Your task to perform on an android device: change keyboard looks Image 0: 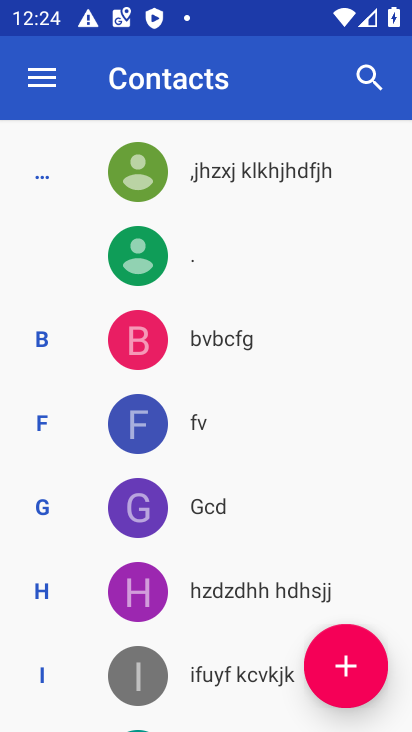
Step 0: press home button
Your task to perform on an android device: change keyboard looks Image 1: 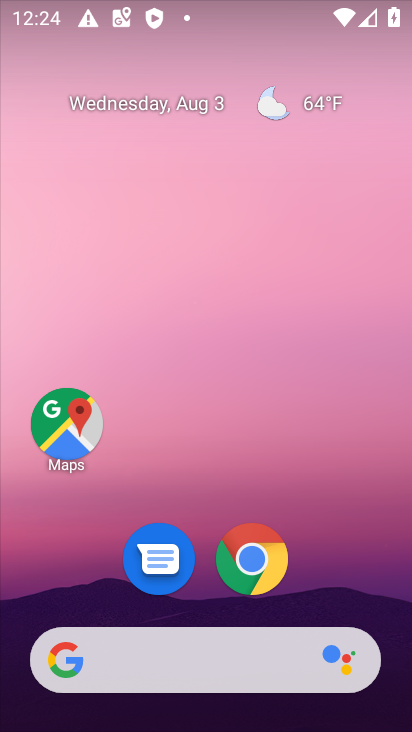
Step 1: drag from (194, 621) to (191, 189)
Your task to perform on an android device: change keyboard looks Image 2: 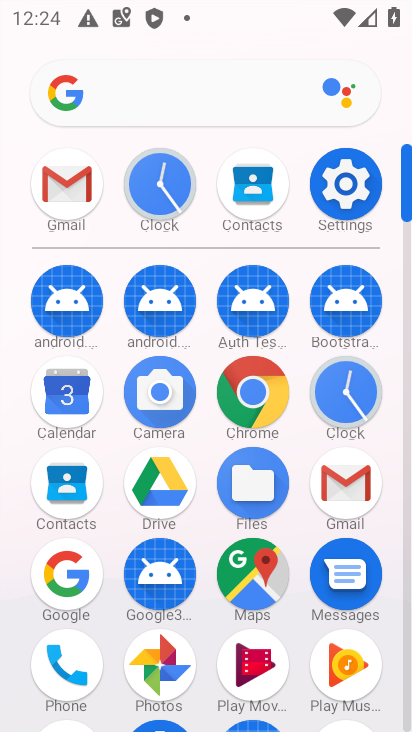
Step 2: click (347, 192)
Your task to perform on an android device: change keyboard looks Image 3: 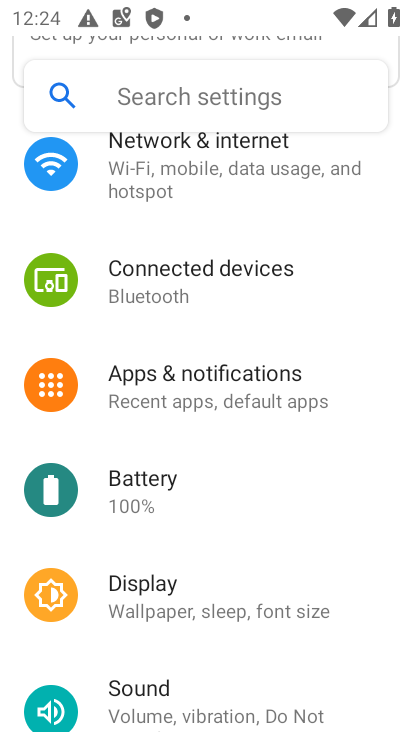
Step 3: drag from (154, 672) to (159, 386)
Your task to perform on an android device: change keyboard looks Image 4: 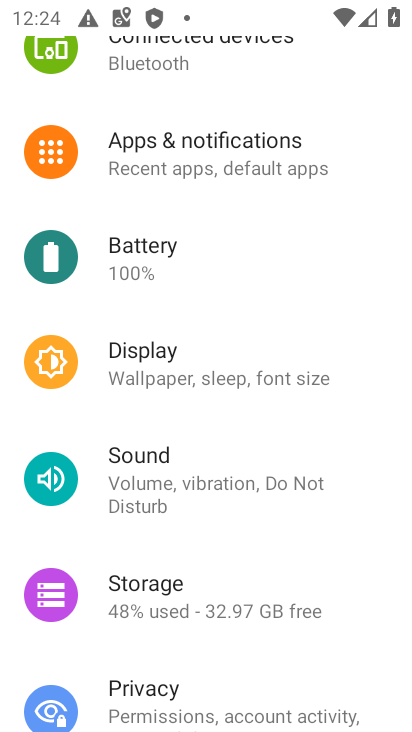
Step 4: drag from (164, 689) to (161, 365)
Your task to perform on an android device: change keyboard looks Image 5: 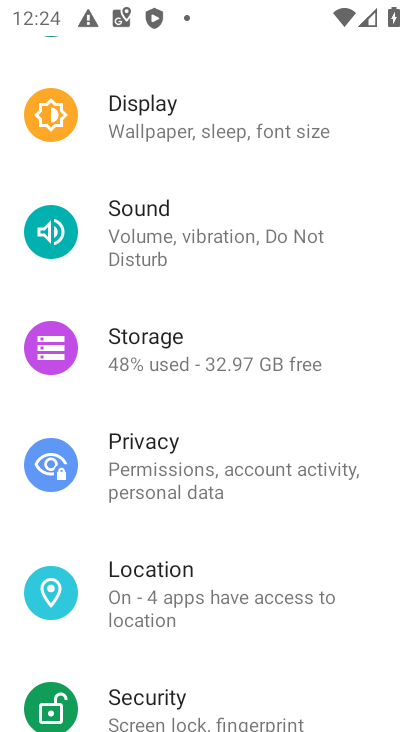
Step 5: drag from (208, 701) to (202, 266)
Your task to perform on an android device: change keyboard looks Image 6: 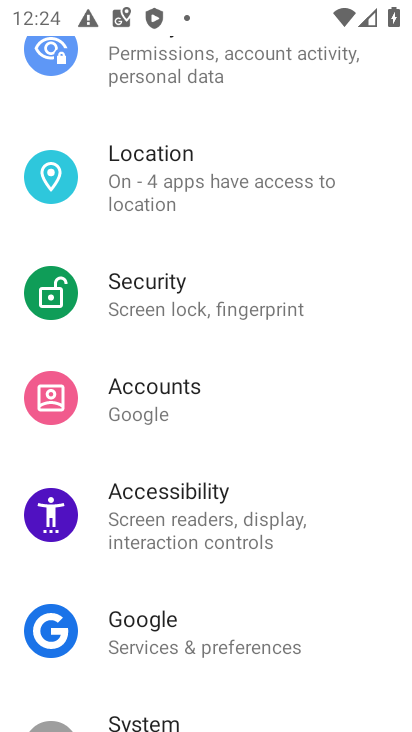
Step 6: drag from (190, 631) to (190, 174)
Your task to perform on an android device: change keyboard looks Image 7: 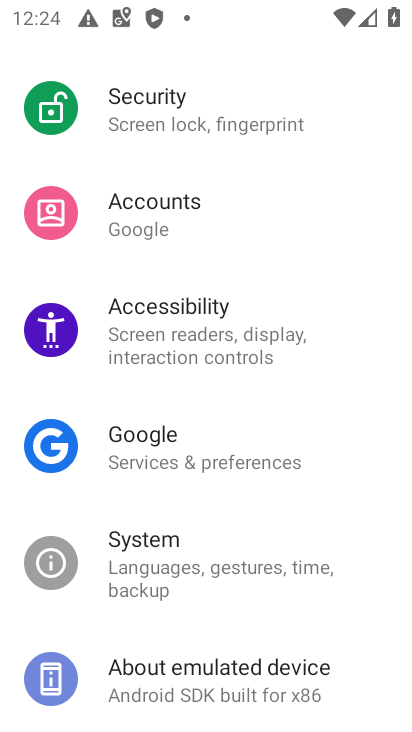
Step 7: click (139, 566)
Your task to perform on an android device: change keyboard looks Image 8: 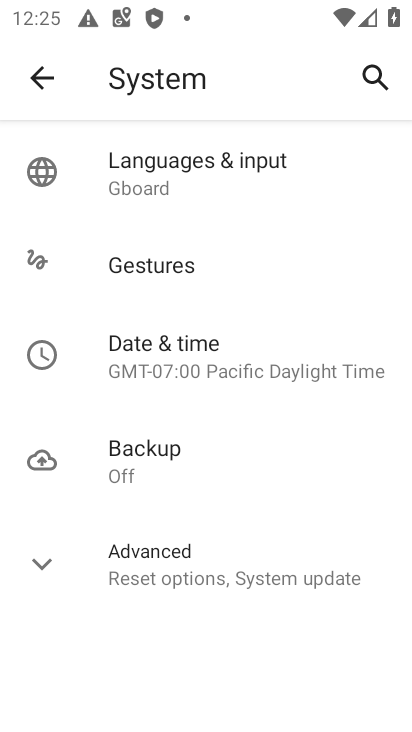
Step 8: click (156, 167)
Your task to perform on an android device: change keyboard looks Image 9: 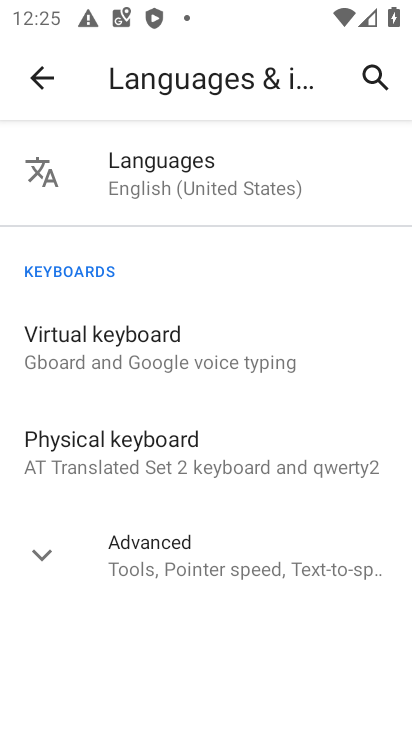
Step 9: click (120, 337)
Your task to perform on an android device: change keyboard looks Image 10: 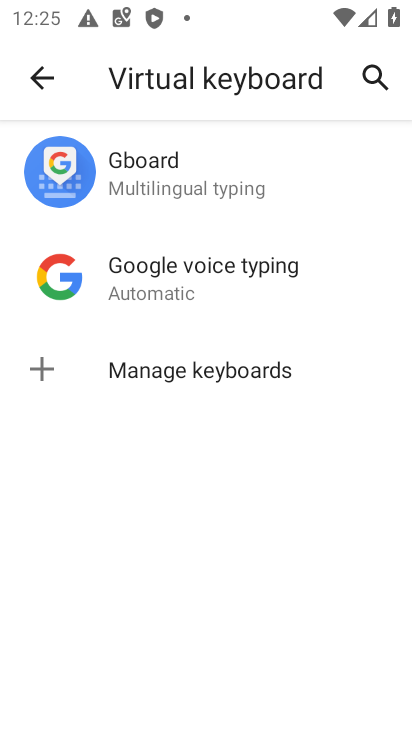
Step 10: click (150, 177)
Your task to perform on an android device: change keyboard looks Image 11: 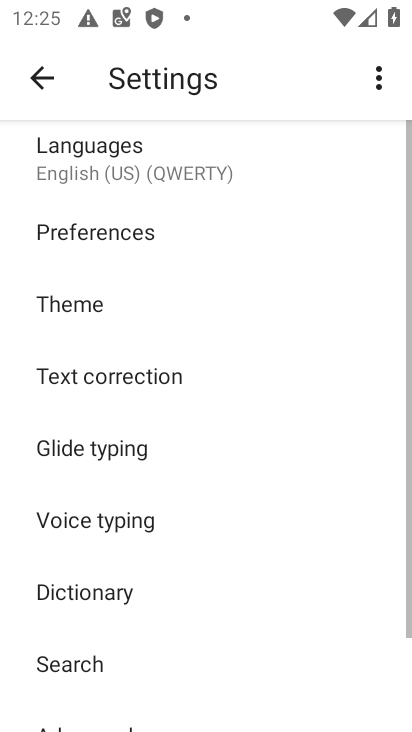
Step 11: click (81, 303)
Your task to perform on an android device: change keyboard looks Image 12: 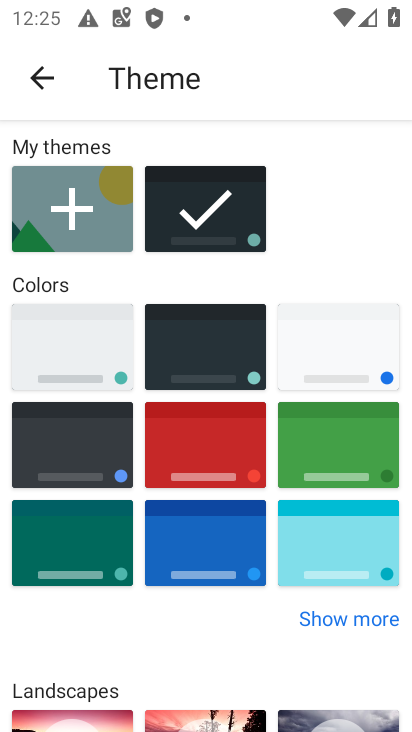
Step 12: click (207, 352)
Your task to perform on an android device: change keyboard looks Image 13: 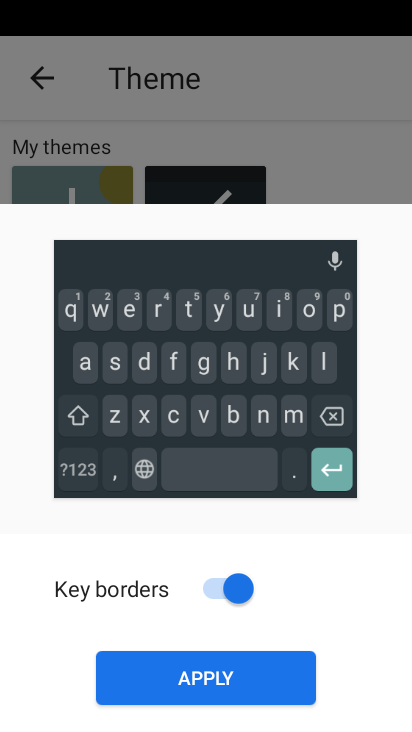
Step 13: click (208, 679)
Your task to perform on an android device: change keyboard looks Image 14: 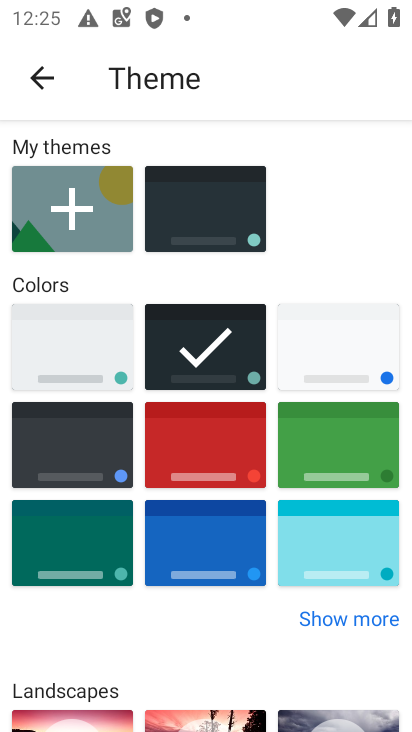
Step 14: task complete